Your task to perform on an android device: Search for seafood restaurants on Google Maps Image 0: 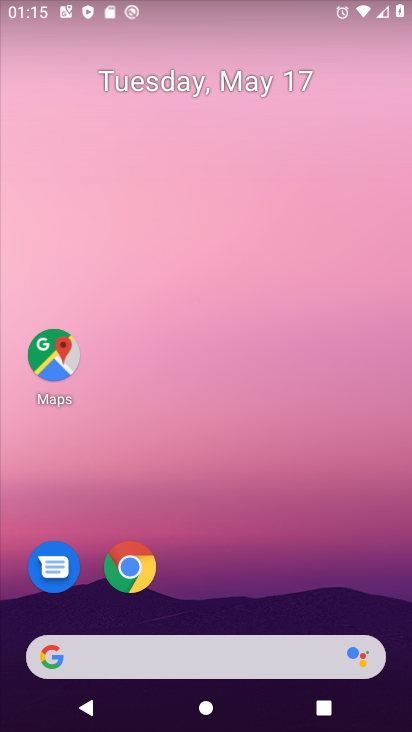
Step 0: click (50, 349)
Your task to perform on an android device: Search for seafood restaurants on Google Maps Image 1: 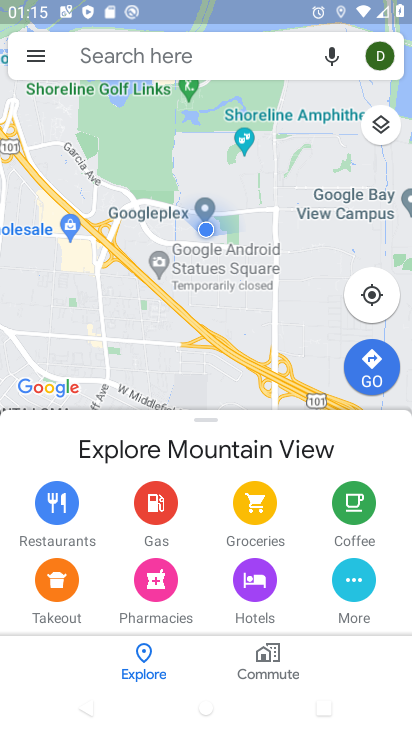
Step 1: click (110, 64)
Your task to perform on an android device: Search for seafood restaurants on Google Maps Image 2: 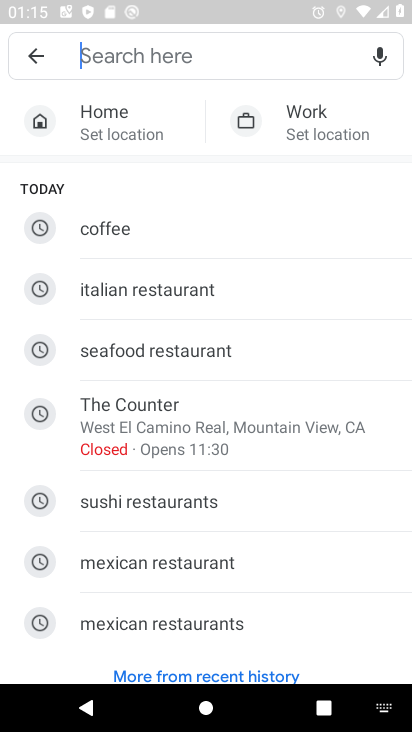
Step 2: click (180, 345)
Your task to perform on an android device: Search for seafood restaurants on Google Maps Image 3: 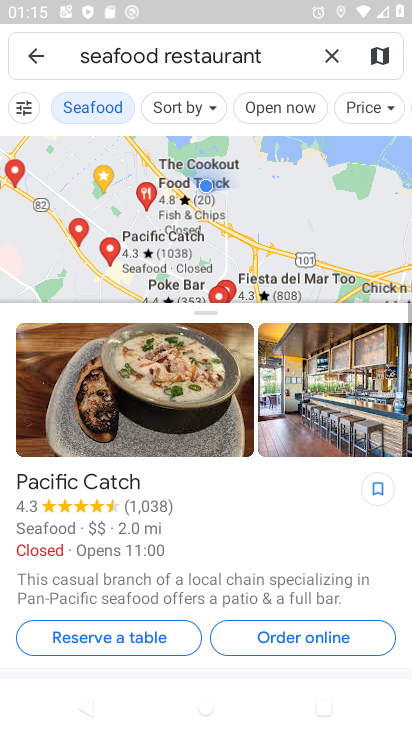
Step 3: task complete